Your task to perform on an android device: turn off location Image 0: 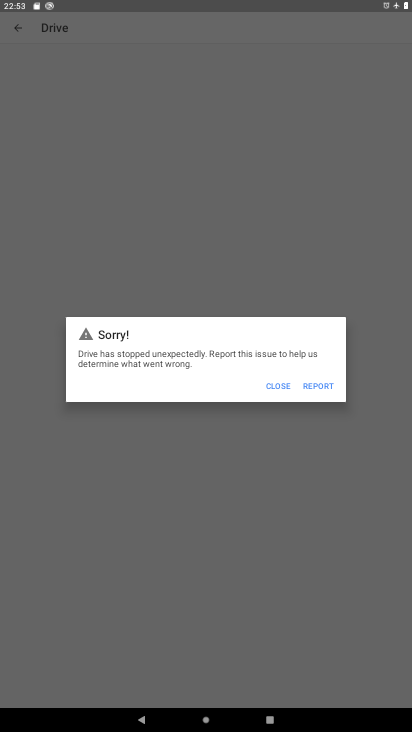
Step 0: press home button
Your task to perform on an android device: turn off location Image 1: 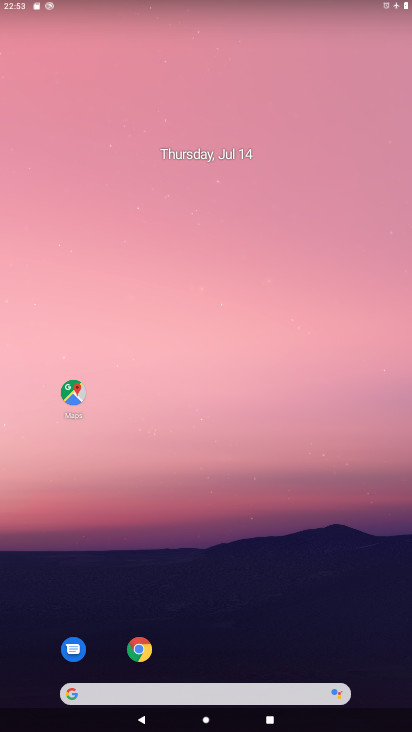
Step 1: drag from (169, 696) to (193, 4)
Your task to perform on an android device: turn off location Image 2: 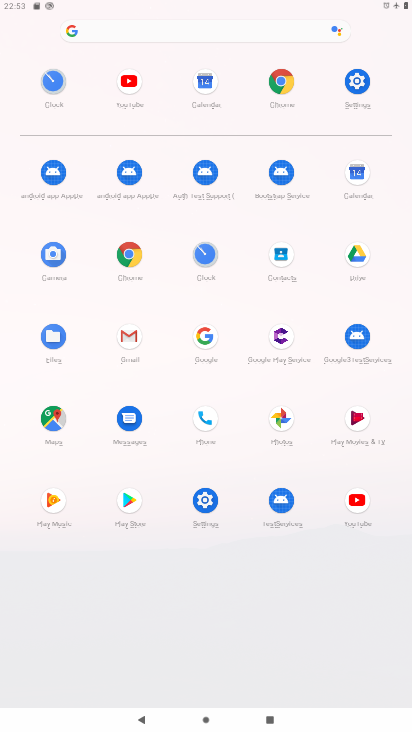
Step 2: click (355, 88)
Your task to perform on an android device: turn off location Image 3: 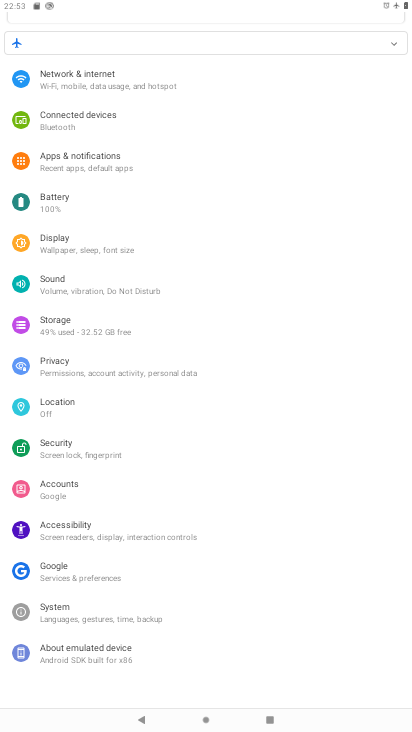
Step 3: click (78, 410)
Your task to perform on an android device: turn off location Image 4: 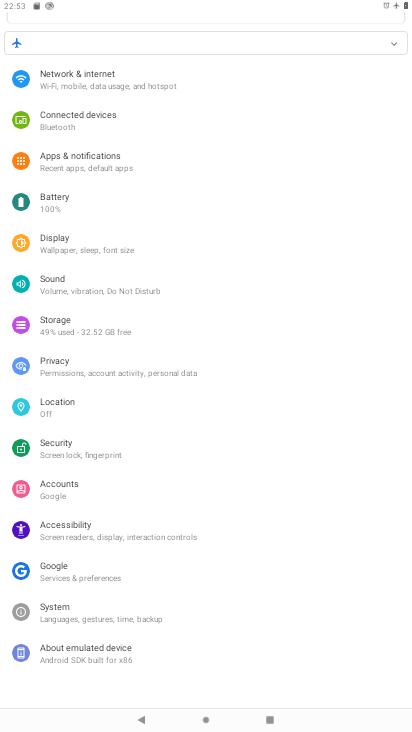
Step 4: click (81, 405)
Your task to perform on an android device: turn off location Image 5: 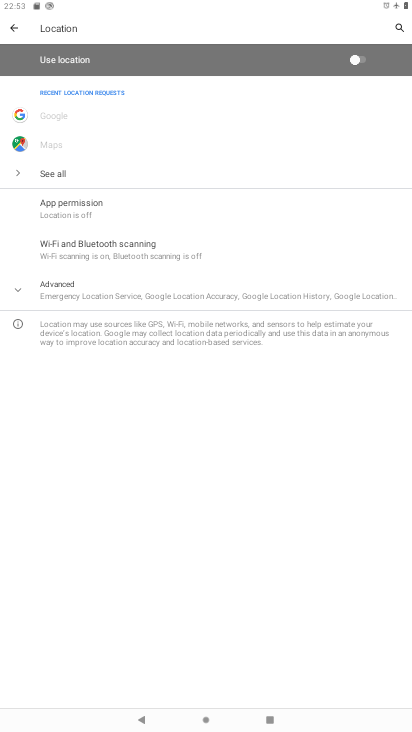
Step 5: task complete